Your task to perform on an android device: move an email to a new category in the gmail app Image 0: 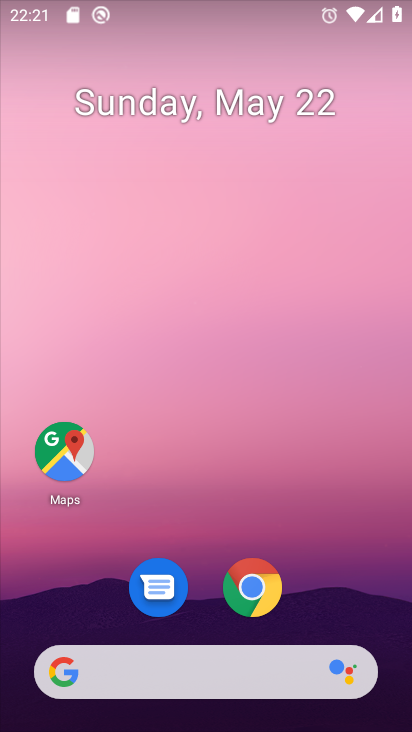
Step 0: drag from (223, 498) to (246, 20)
Your task to perform on an android device: move an email to a new category in the gmail app Image 1: 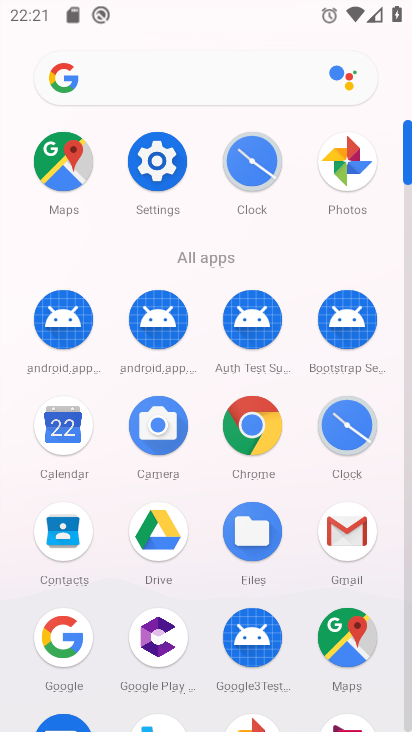
Step 1: click (334, 531)
Your task to perform on an android device: move an email to a new category in the gmail app Image 2: 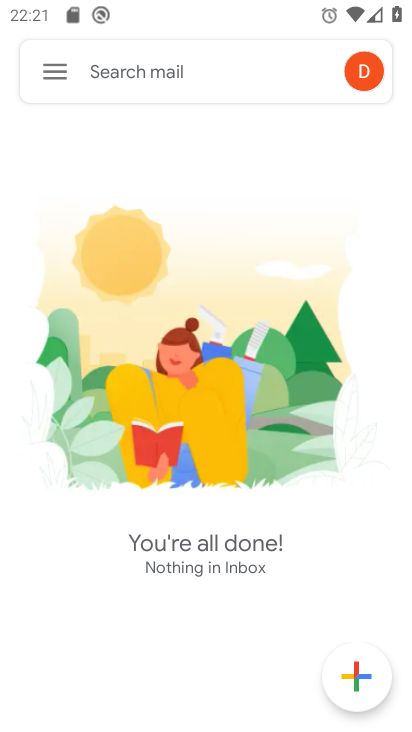
Step 2: click (54, 66)
Your task to perform on an android device: move an email to a new category in the gmail app Image 3: 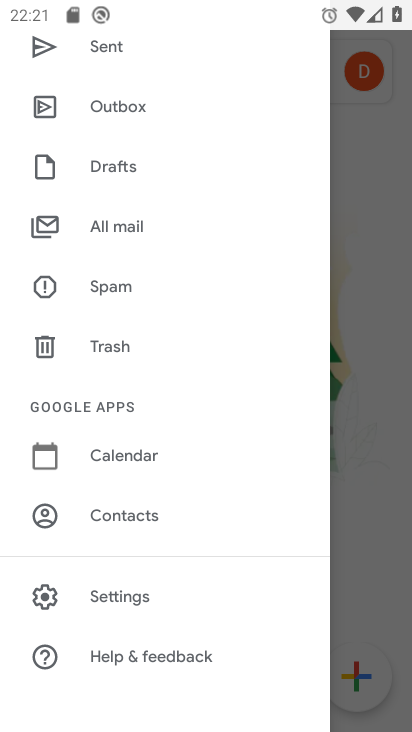
Step 3: click (102, 217)
Your task to perform on an android device: move an email to a new category in the gmail app Image 4: 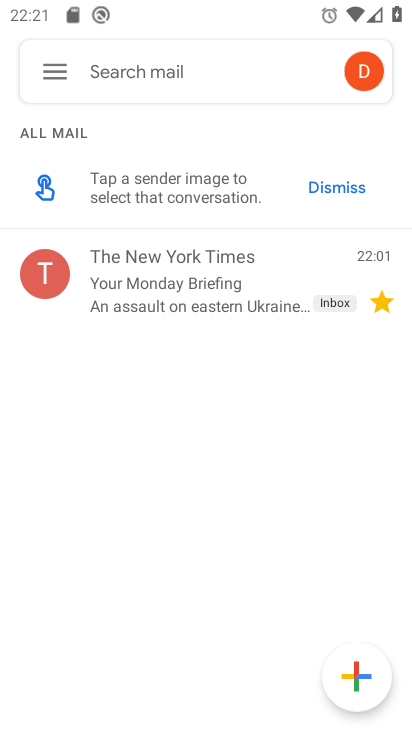
Step 4: click (175, 266)
Your task to perform on an android device: move an email to a new category in the gmail app Image 5: 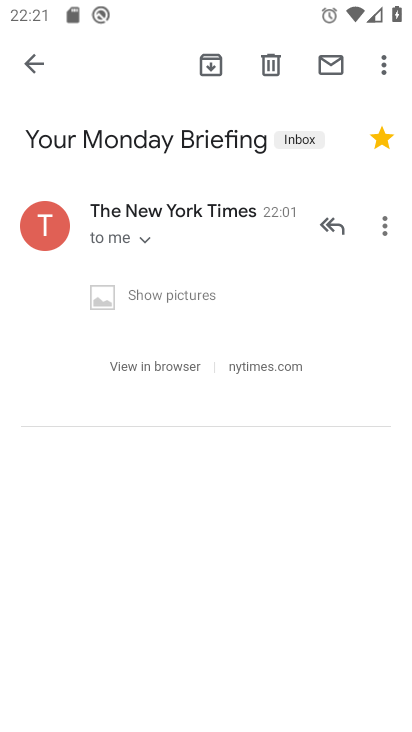
Step 5: click (383, 65)
Your task to perform on an android device: move an email to a new category in the gmail app Image 6: 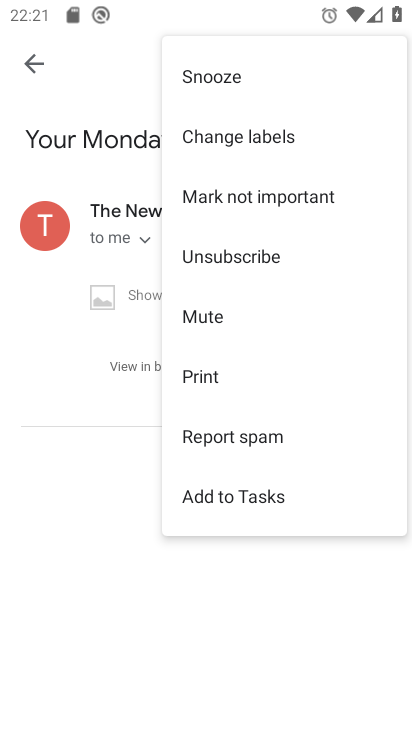
Step 6: click (110, 562)
Your task to perform on an android device: move an email to a new category in the gmail app Image 7: 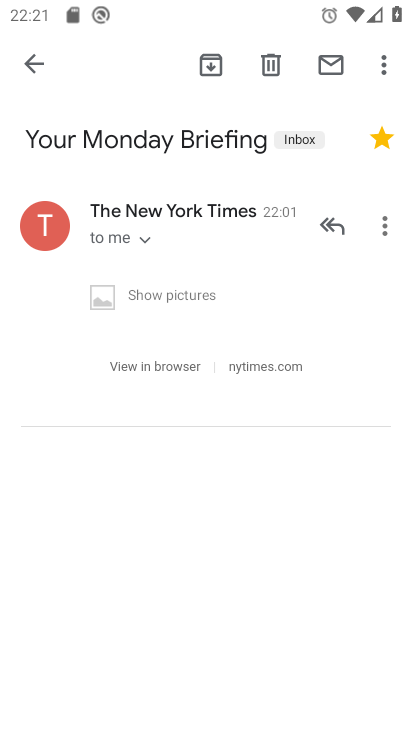
Step 7: click (388, 222)
Your task to perform on an android device: move an email to a new category in the gmail app Image 8: 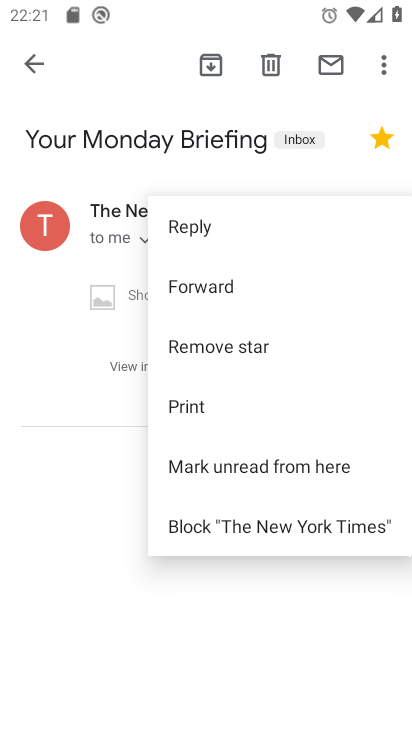
Step 8: click (312, 458)
Your task to perform on an android device: move an email to a new category in the gmail app Image 9: 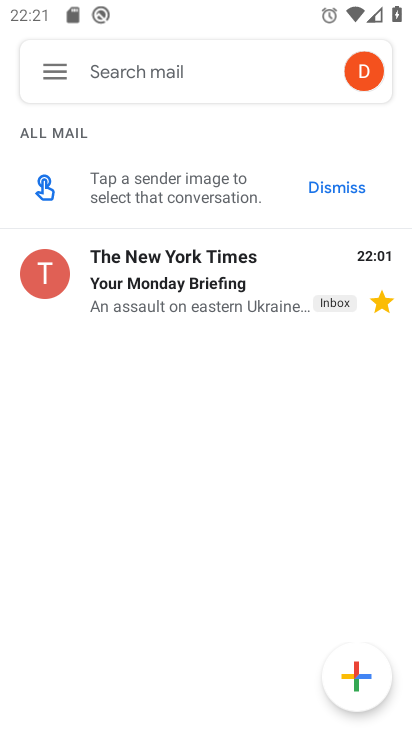
Step 9: task complete